Your task to perform on an android device: find snoozed emails in the gmail app Image 0: 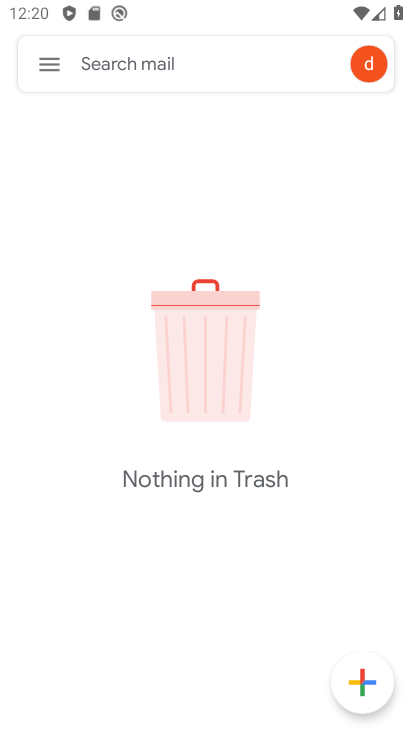
Step 0: click (61, 60)
Your task to perform on an android device: find snoozed emails in the gmail app Image 1: 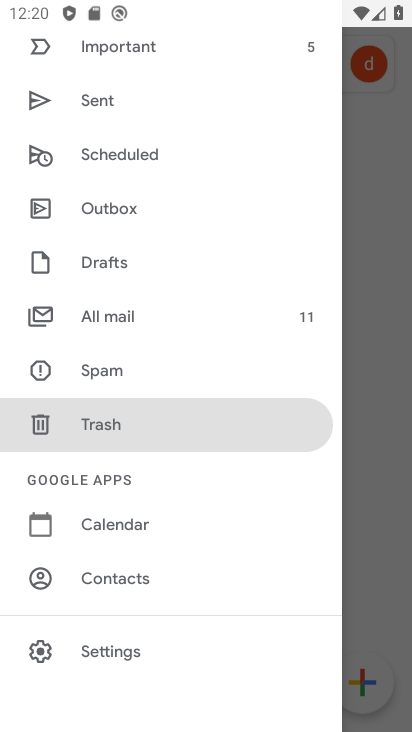
Step 1: drag from (189, 222) to (191, 509)
Your task to perform on an android device: find snoozed emails in the gmail app Image 2: 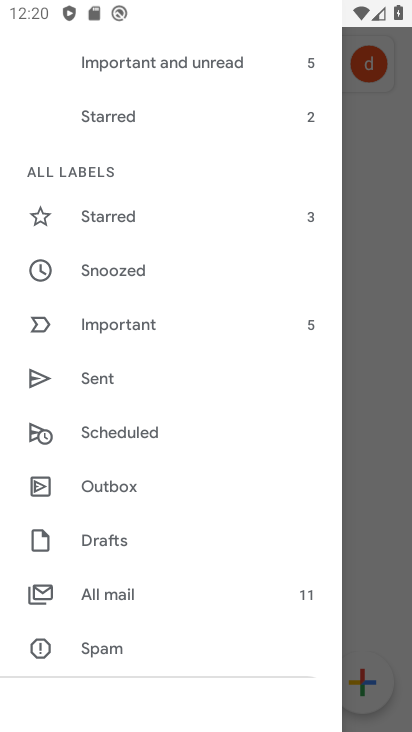
Step 2: drag from (129, 593) to (168, 459)
Your task to perform on an android device: find snoozed emails in the gmail app Image 3: 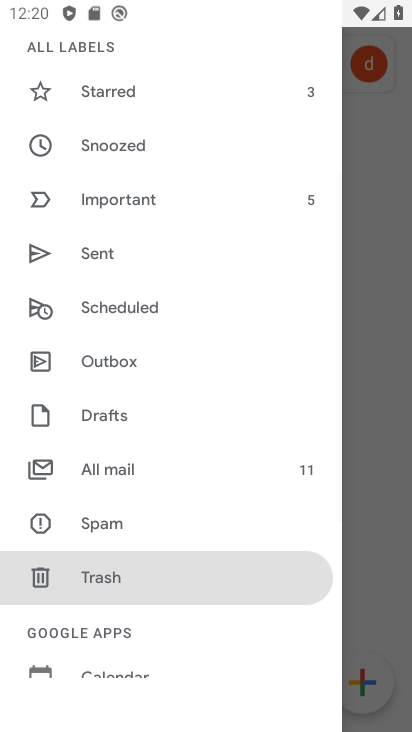
Step 3: click (148, 150)
Your task to perform on an android device: find snoozed emails in the gmail app Image 4: 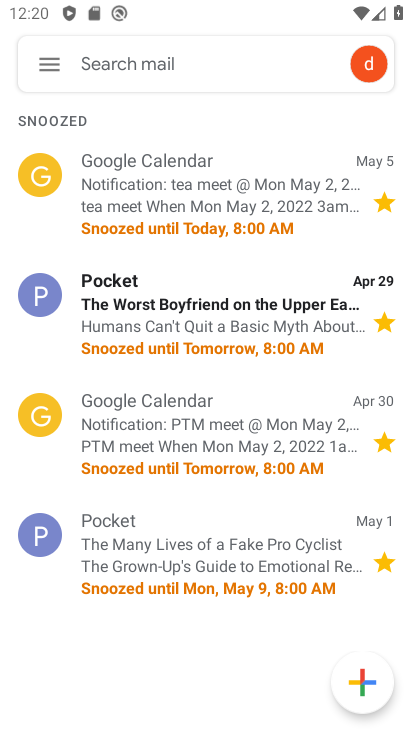
Step 4: task complete